Your task to perform on an android device: Open Android settings Image 0: 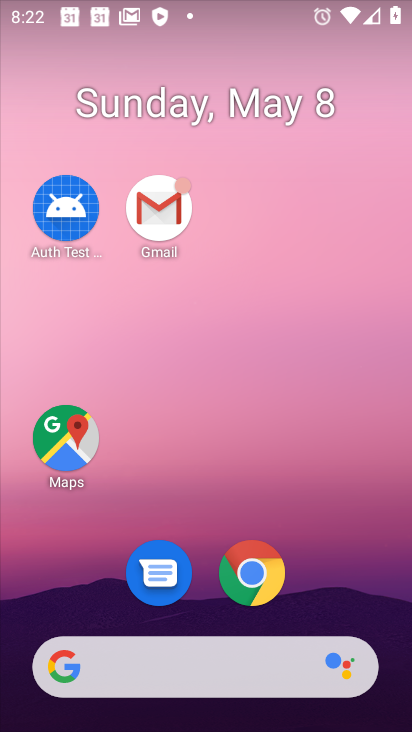
Step 0: drag from (377, 583) to (261, 155)
Your task to perform on an android device: Open Android settings Image 1: 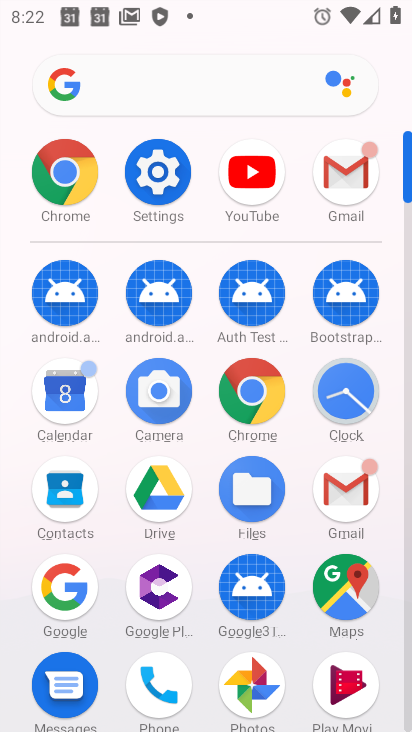
Step 1: click (160, 182)
Your task to perform on an android device: Open Android settings Image 2: 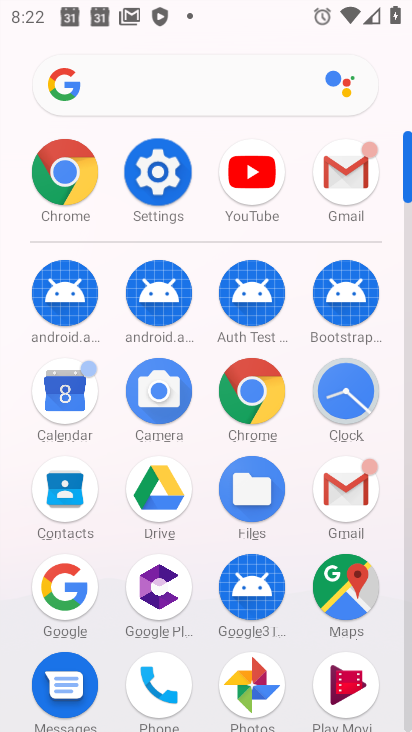
Step 2: click (160, 182)
Your task to perform on an android device: Open Android settings Image 3: 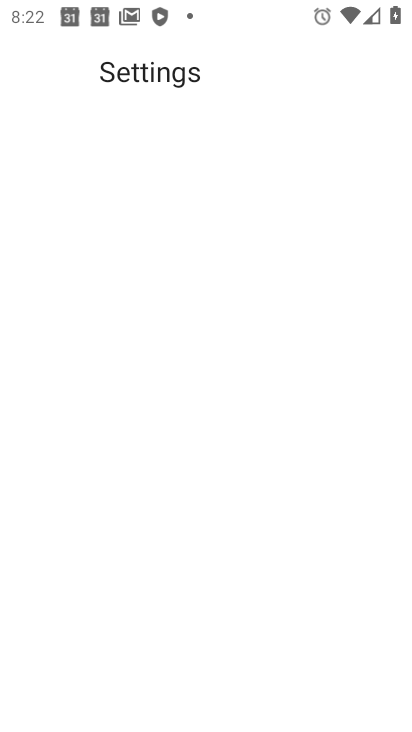
Step 3: click (160, 182)
Your task to perform on an android device: Open Android settings Image 4: 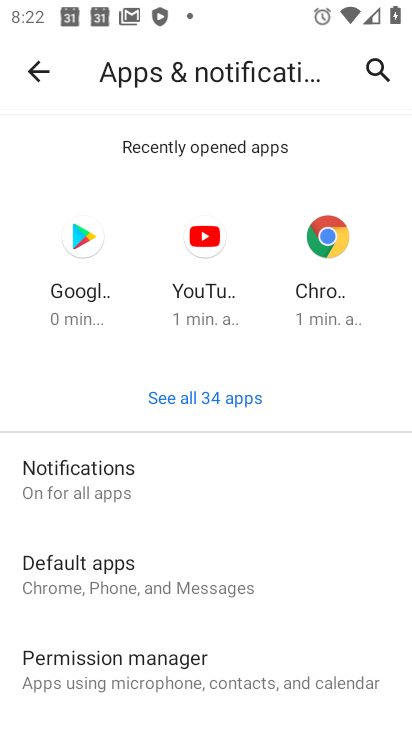
Step 4: click (31, 63)
Your task to perform on an android device: Open Android settings Image 5: 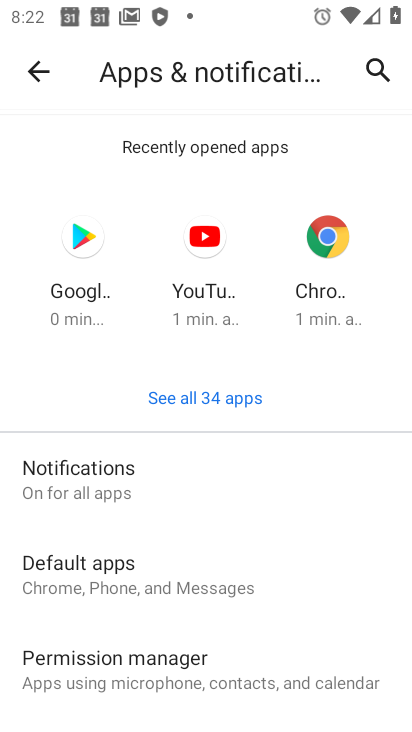
Step 5: click (31, 63)
Your task to perform on an android device: Open Android settings Image 6: 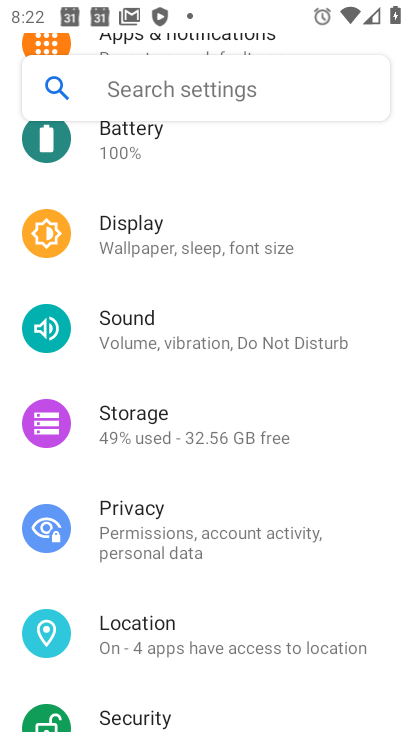
Step 6: click (31, 63)
Your task to perform on an android device: Open Android settings Image 7: 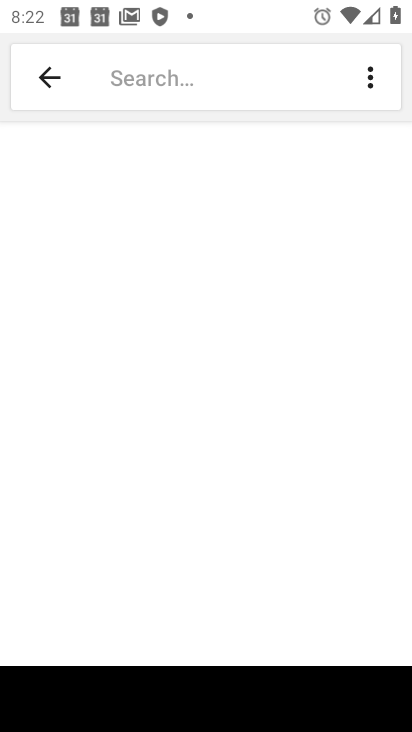
Step 7: click (49, 79)
Your task to perform on an android device: Open Android settings Image 8: 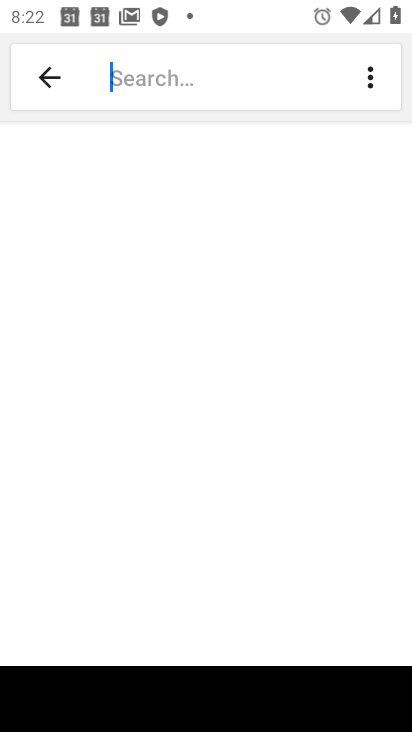
Step 8: click (50, 78)
Your task to perform on an android device: Open Android settings Image 9: 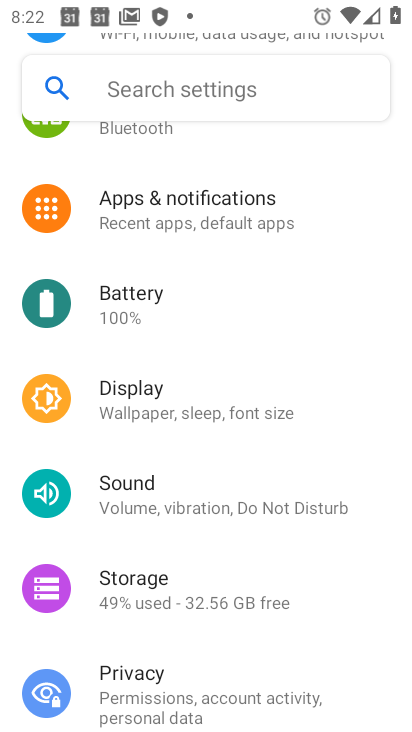
Step 9: drag from (126, 612) to (66, 55)
Your task to perform on an android device: Open Android settings Image 10: 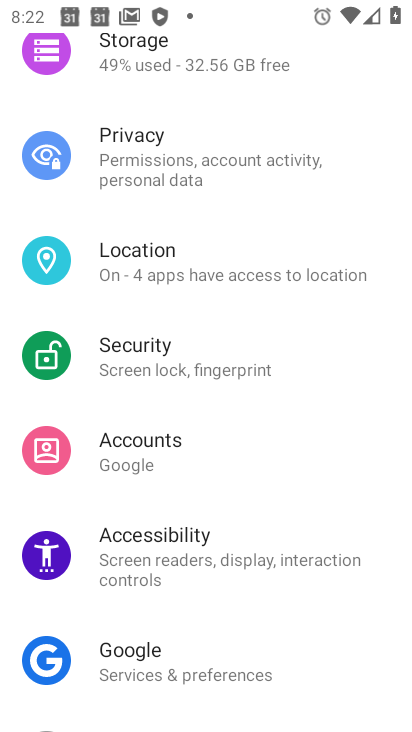
Step 10: drag from (191, 640) to (137, 190)
Your task to perform on an android device: Open Android settings Image 11: 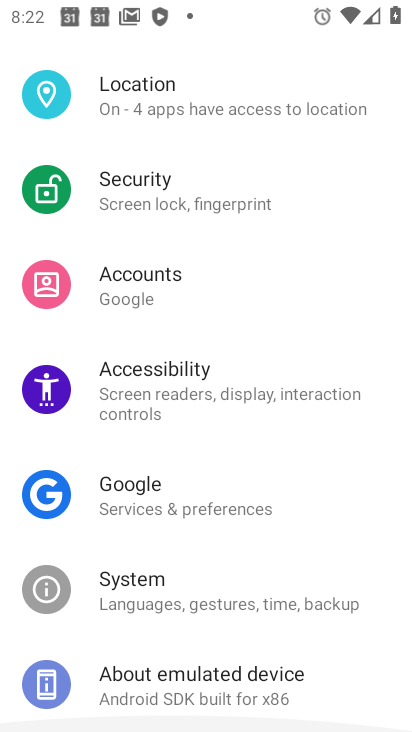
Step 11: drag from (203, 487) to (192, 111)
Your task to perform on an android device: Open Android settings Image 12: 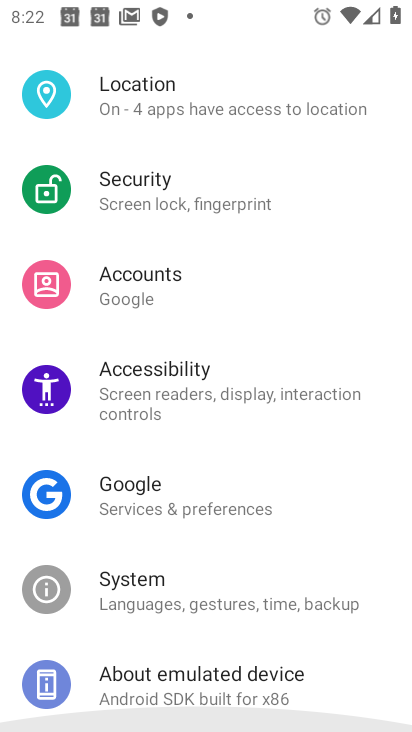
Step 12: drag from (282, 576) to (247, 290)
Your task to perform on an android device: Open Android settings Image 13: 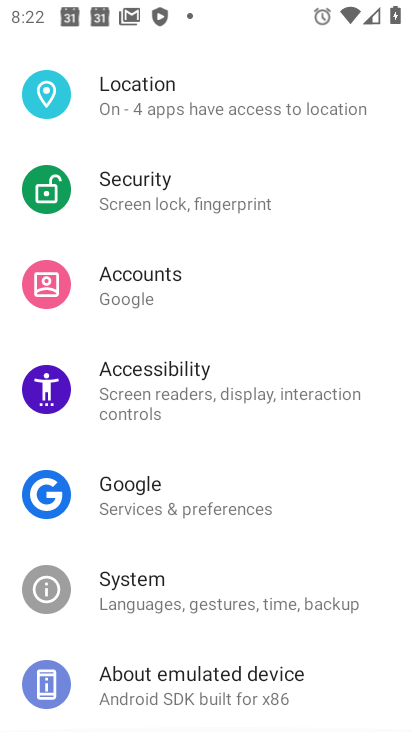
Step 13: click (186, 684)
Your task to perform on an android device: Open Android settings Image 14: 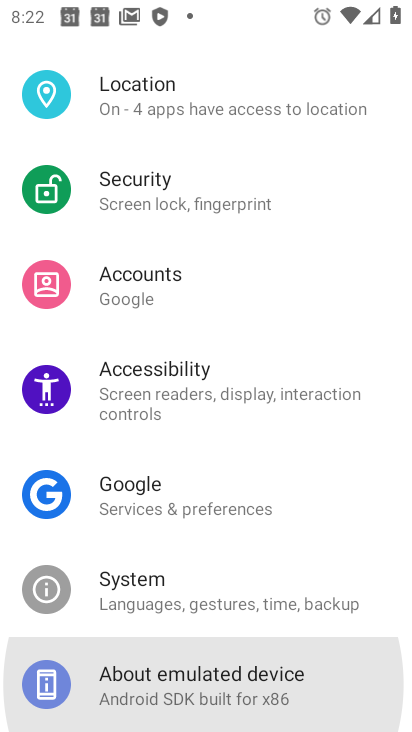
Step 14: click (186, 684)
Your task to perform on an android device: Open Android settings Image 15: 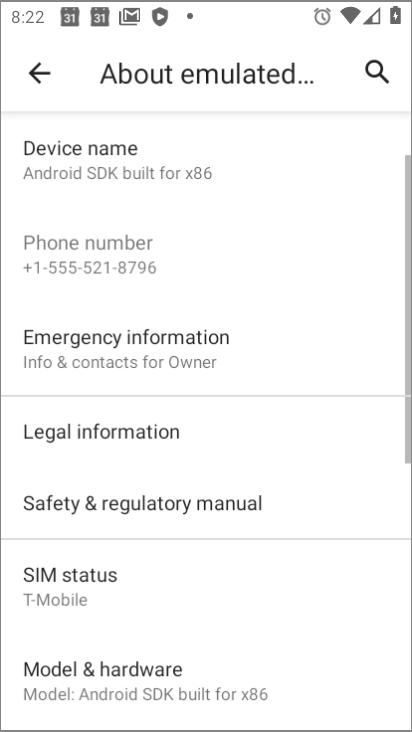
Step 15: click (186, 684)
Your task to perform on an android device: Open Android settings Image 16: 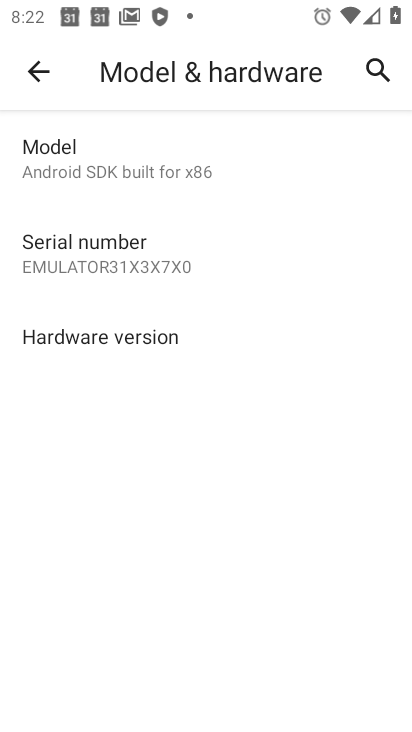
Step 16: drag from (135, 487) to (132, 72)
Your task to perform on an android device: Open Android settings Image 17: 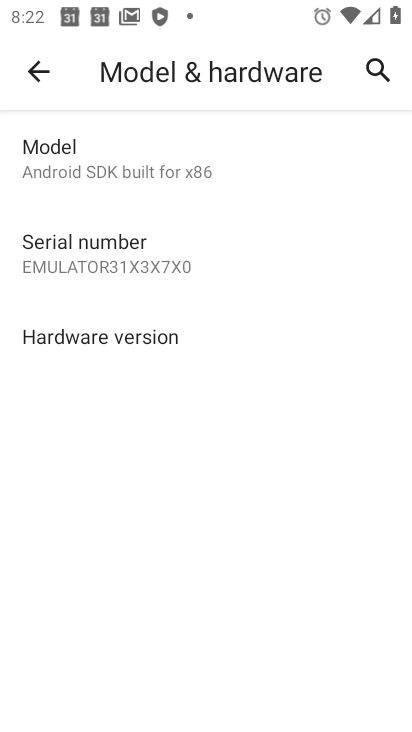
Step 17: click (31, 76)
Your task to perform on an android device: Open Android settings Image 18: 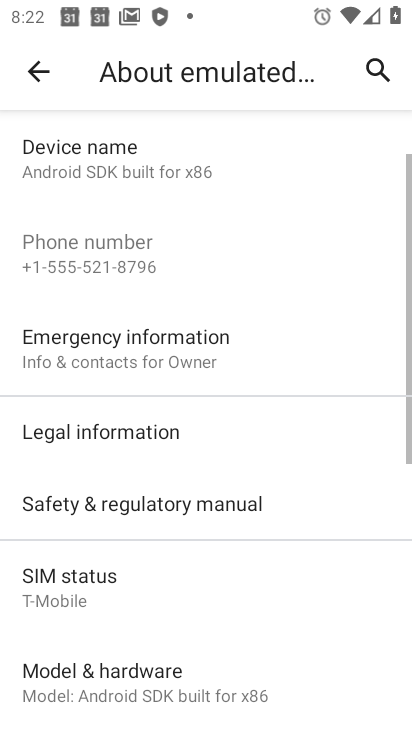
Step 18: task complete